Your task to perform on an android device: turn on sleep mode Image 0: 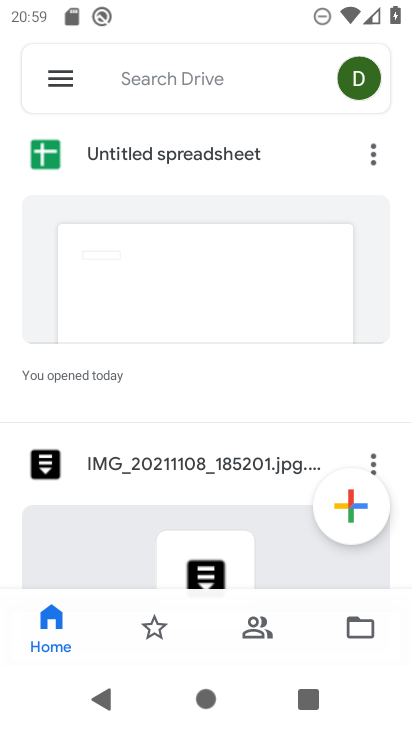
Step 0: press home button
Your task to perform on an android device: turn on sleep mode Image 1: 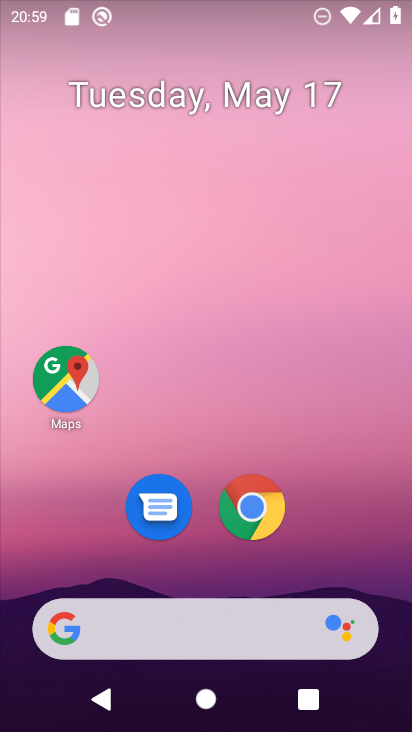
Step 1: drag from (360, 544) to (370, 22)
Your task to perform on an android device: turn on sleep mode Image 2: 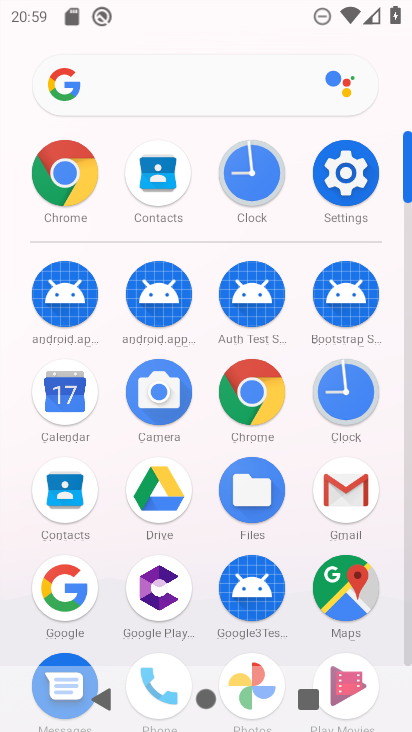
Step 2: click (339, 186)
Your task to perform on an android device: turn on sleep mode Image 3: 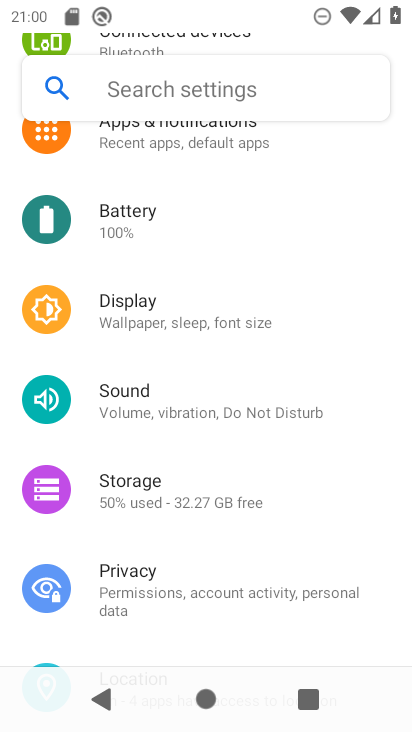
Step 3: click (131, 310)
Your task to perform on an android device: turn on sleep mode Image 4: 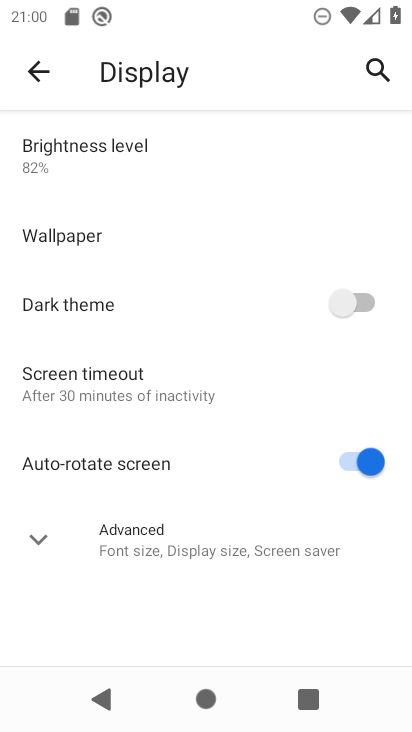
Step 4: click (38, 535)
Your task to perform on an android device: turn on sleep mode Image 5: 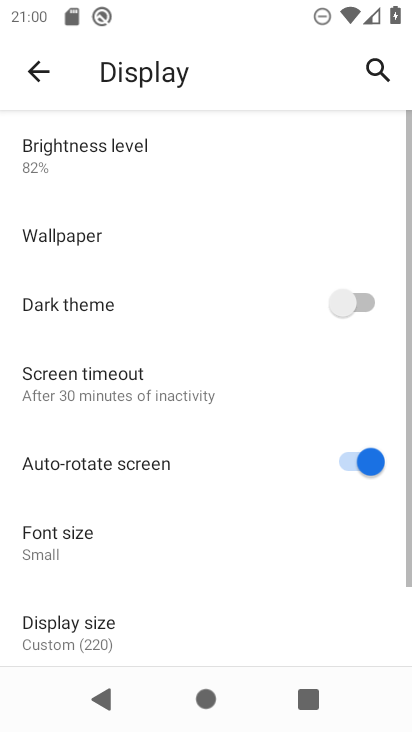
Step 5: task complete